Your task to perform on an android device: turn off wifi Image 0: 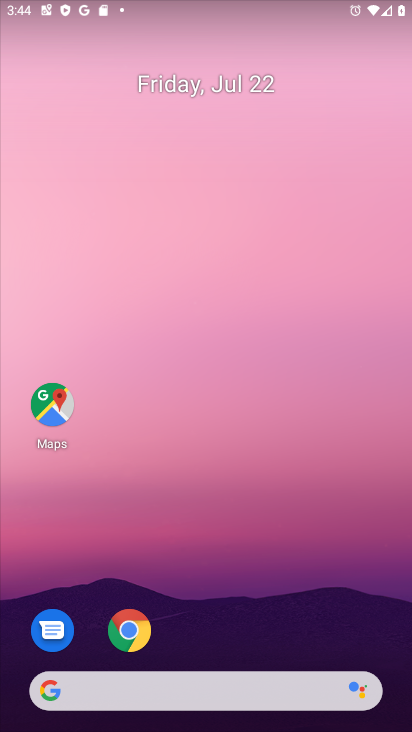
Step 0: drag from (214, 683) to (197, 219)
Your task to perform on an android device: turn off wifi Image 1: 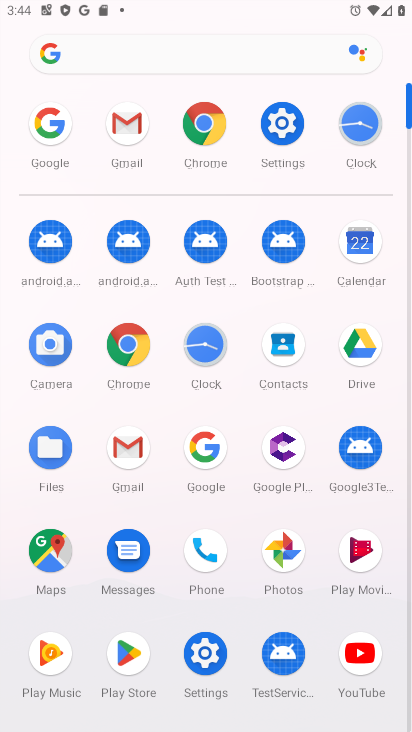
Step 1: click (275, 136)
Your task to perform on an android device: turn off wifi Image 2: 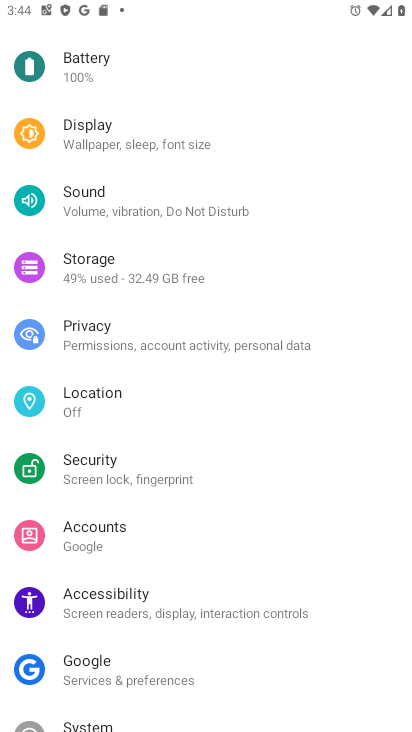
Step 2: drag from (149, 92) to (126, 620)
Your task to perform on an android device: turn off wifi Image 3: 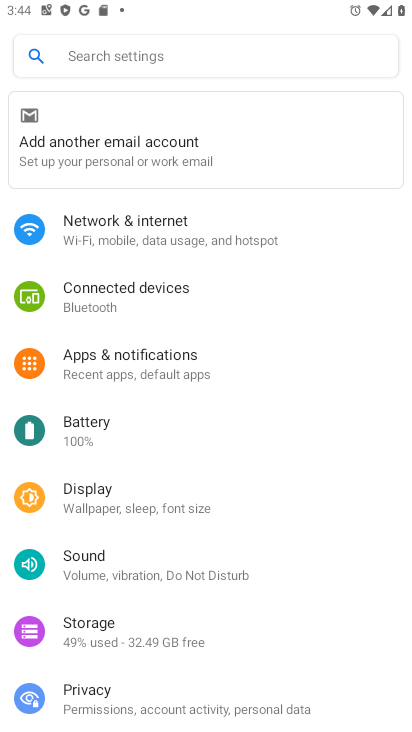
Step 3: click (94, 236)
Your task to perform on an android device: turn off wifi Image 4: 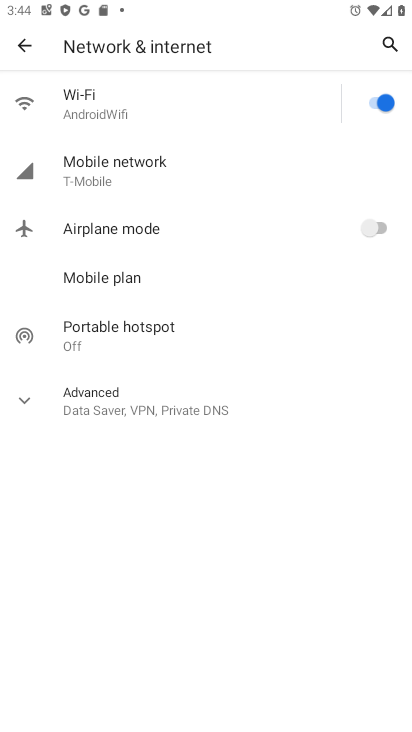
Step 4: click (381, 93)
Your task to perform on an android device: turn off wifi Image 5: 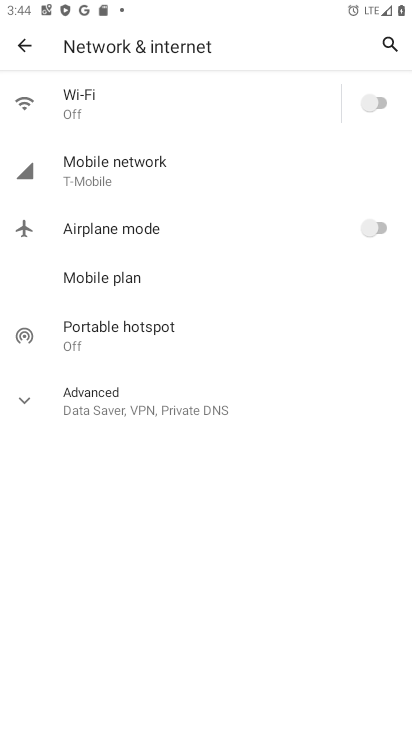
Step 5: task complete